Your task to perform on an android device: open device folders in google photos Image 0: 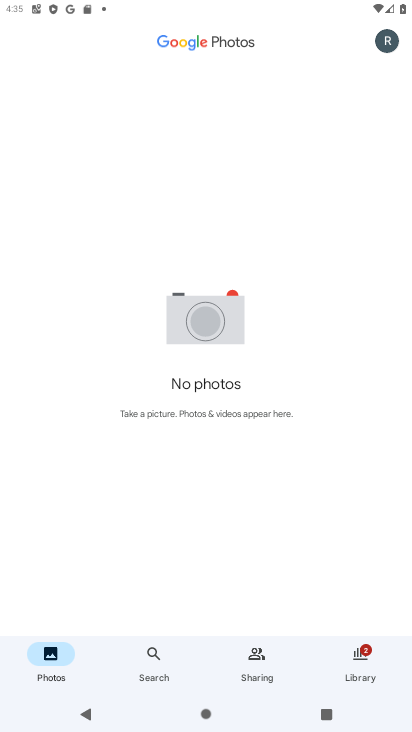
Step 0: click (389, 38)
Your task to perform on an android device: open device folders in google photos Image 1: 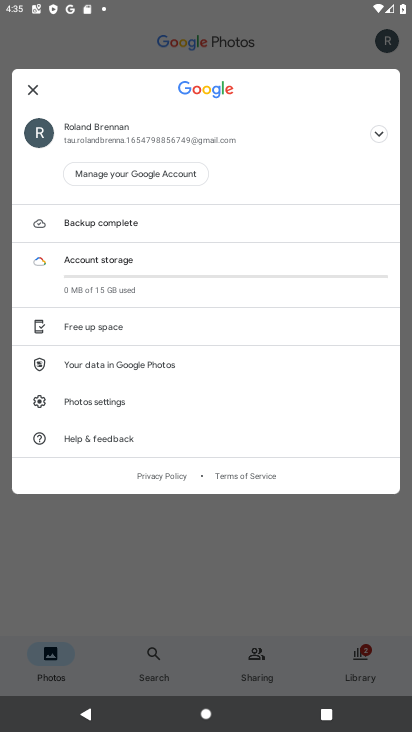
Step 1: click (157, 652)
Your task to perform on an android device: open device folders in google photos Image 2: 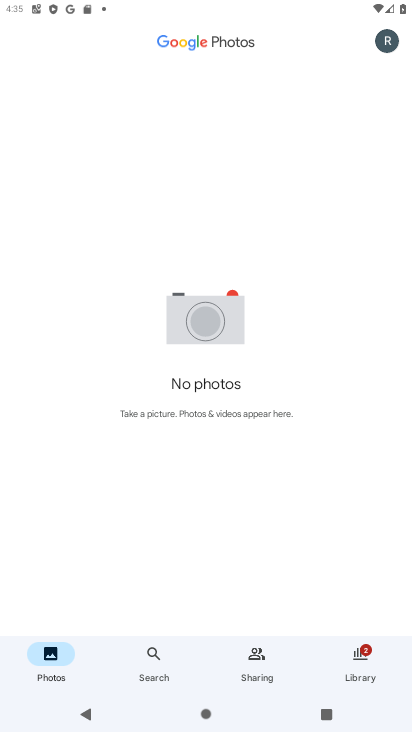
Step 2: click (143, 652)
Your task to perform on an android device: open device folders in google photos Image 3: 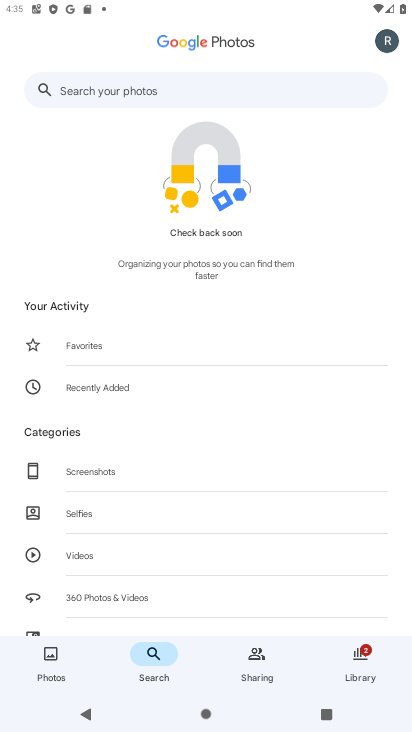
Step 3: click (105, 88)
Your task to perform on an android device: open device folders in google photos Image 4: 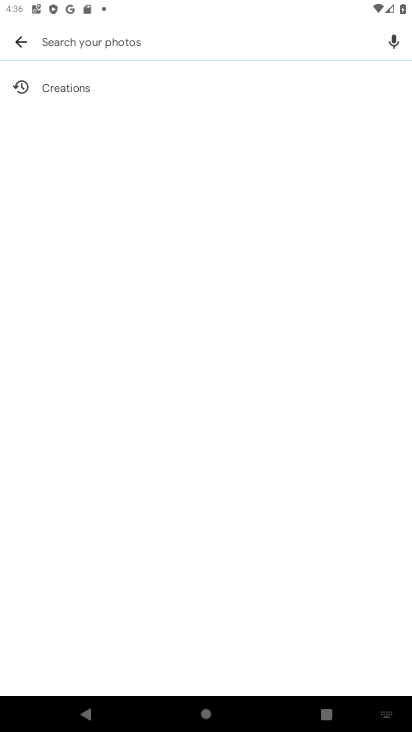
Step 4: type "device"
Your task to perform on an android device: open device folders in google photos Image 5: 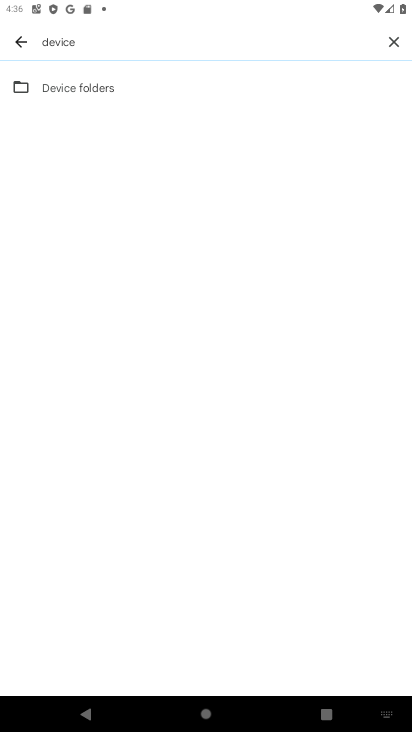
Step 5: click (98, 89)
Your task to perform on an android device: open device folders in google photos Image 6: 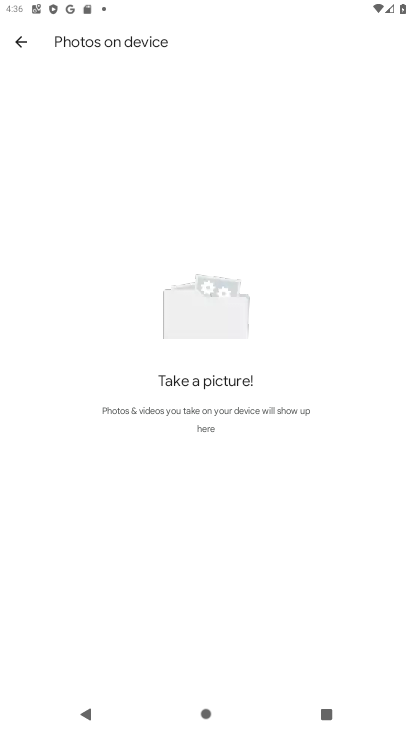
Step 6: task complete